Your task to perform on an android device: Open privacy settings Image 0: 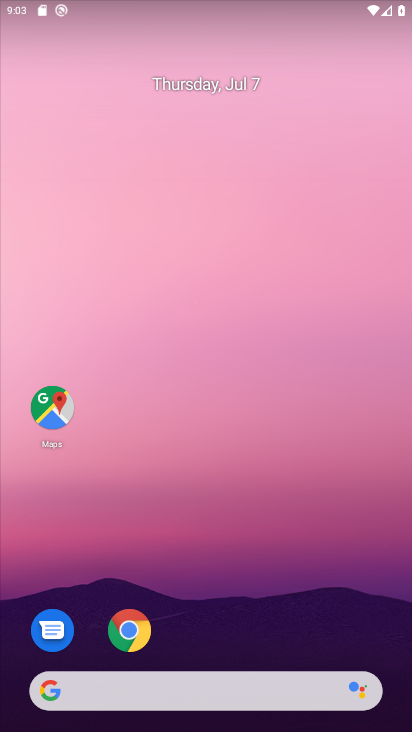
Step 0: click (312, 24)
Your task to perform on an android device: Open privacy settings Image 1: 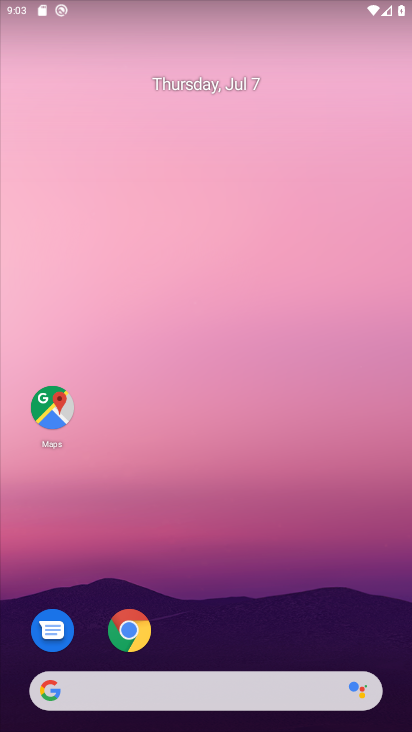
Step 1: drag from (9, 711) to (242, 131)
Your task to perform on an android device: Open privacy settings Image 2: 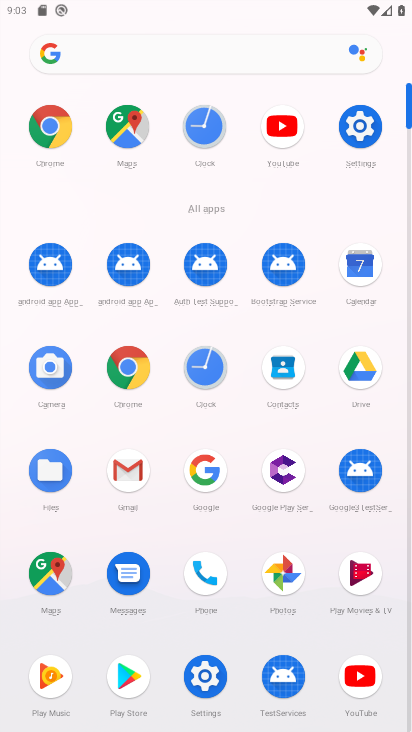
Step 2: click (206, 681)
Your task to perform on an android device: Open privacy settings Image 3: 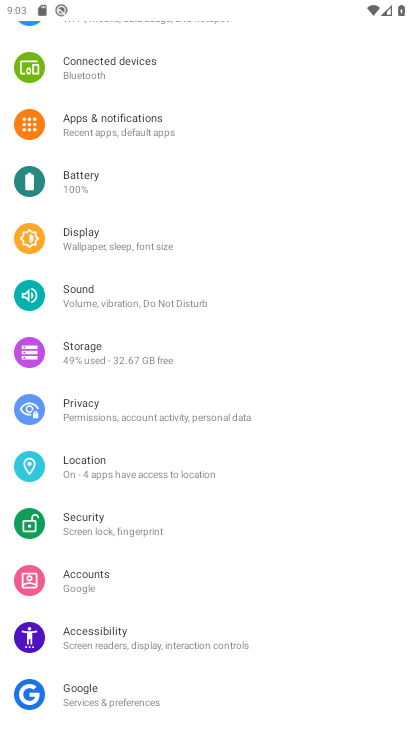
Step 3: click (64, 405)
Your task to perform on an android device: Open privacy settings Image 4: 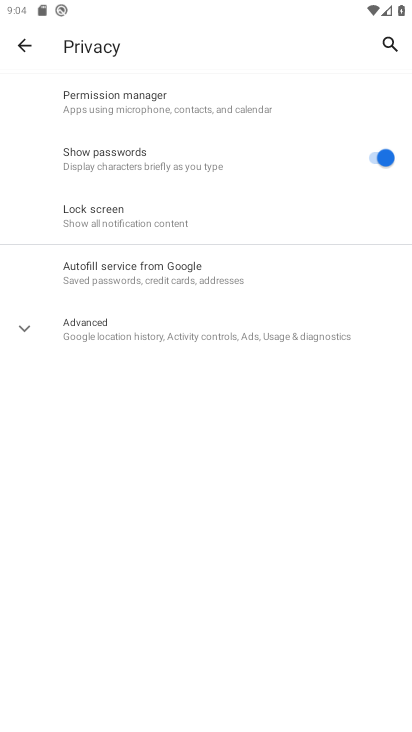
Step 4: task complete